Your task to perform on an android device: toggle translation in the chrome app Image 0: 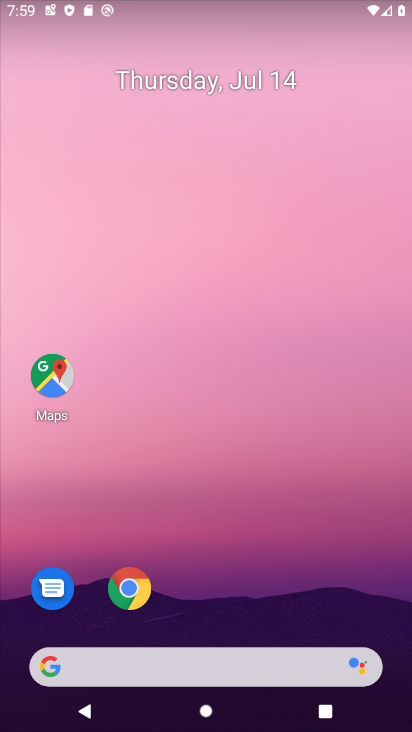
Step 0: drag from (355, 574) to (248, 128)
Your task to perform on an android device: toggle translation in the chrome app Image 1: 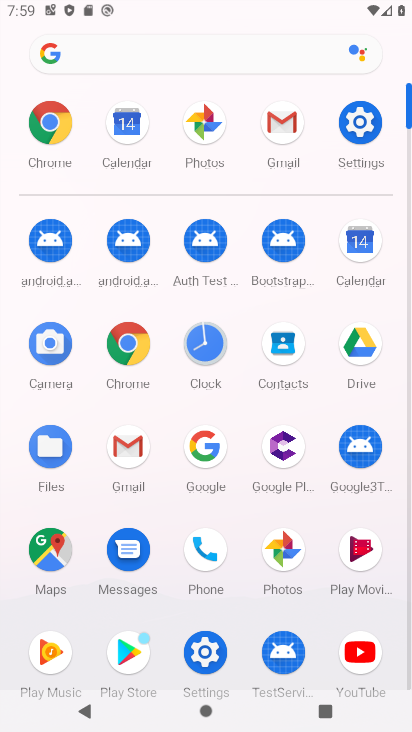
Step 1: click (128, 336)
Your task to perform on an android device: toggle translation in the chrome app Image 2: 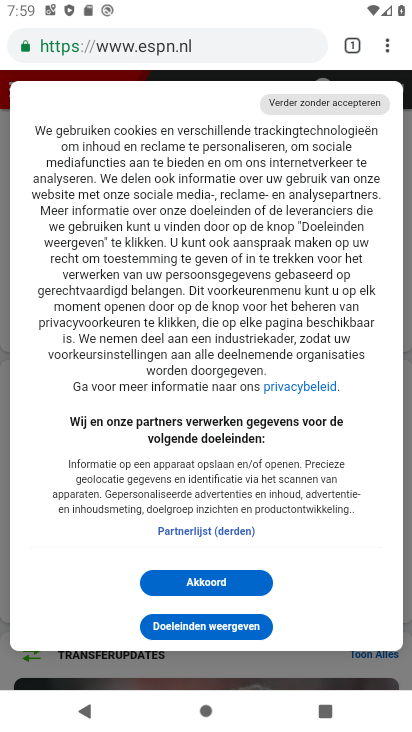
Step 2: click (393, 46)
Your task to perform on an android device: toggle translation in the chrome app Image 3: 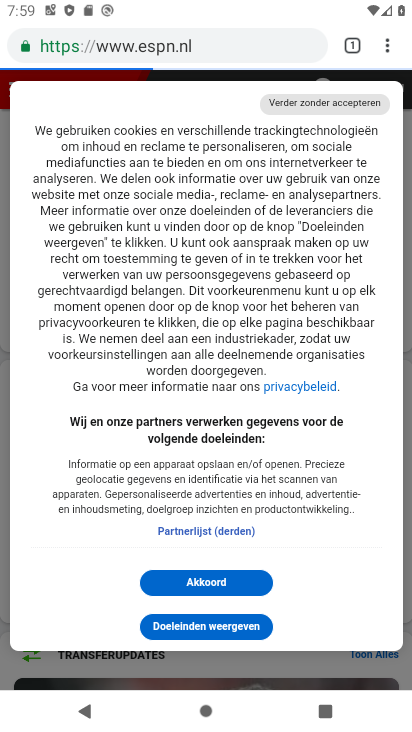
Step 3: drag from (382, 35) to (259, 559)
Your task to perform on an android device: toggle translation in the chrome app Image 4: 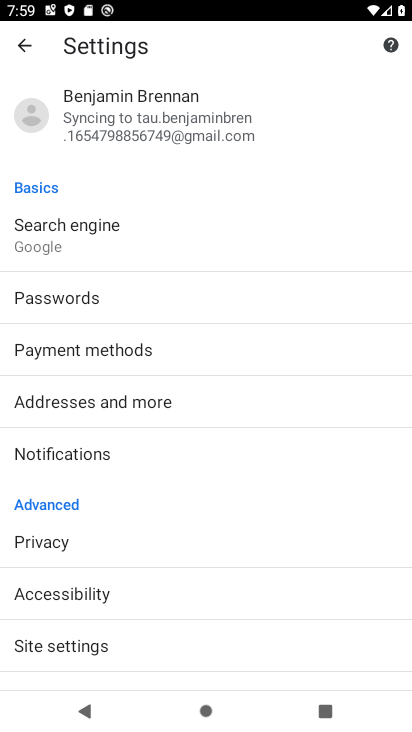
Step 4: drag from (245, 647) to (226, 283)
Your task to perform on an android device: toggle translation in the chrome app Image 5: 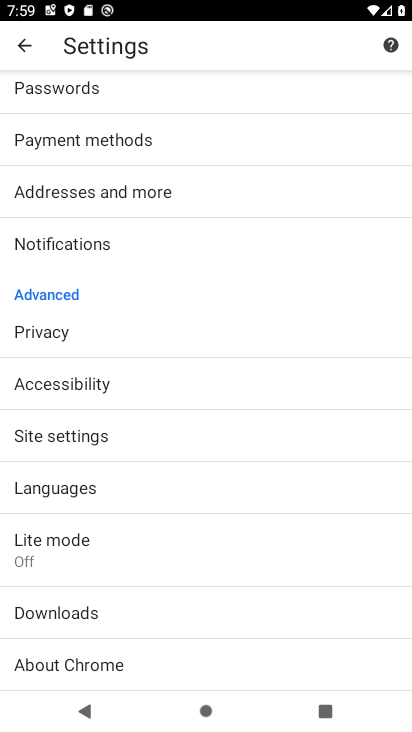
Step 5: click (64, 494)
Your task to perform on an android device: toggle translation in the chrome app Image 6: 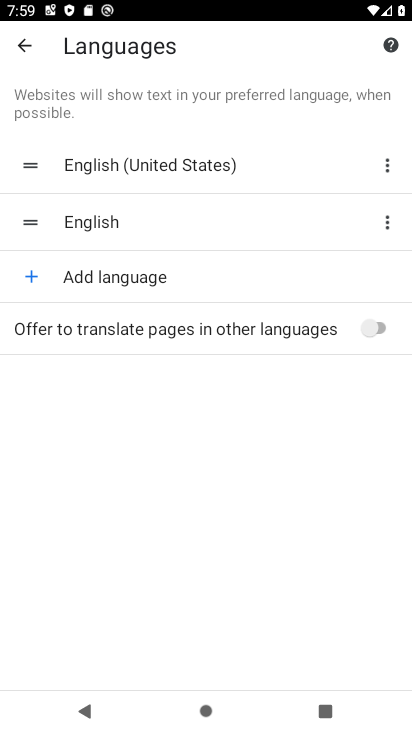
Step 6: click (382, 325)
Your task to perform on an android device: toggle translation in the chrome app Image 7: 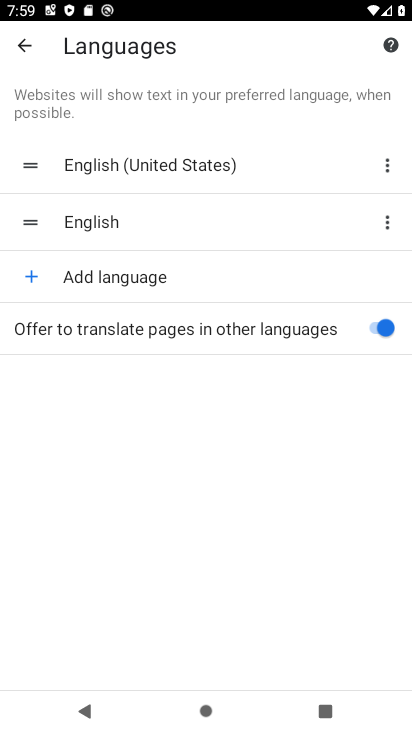
Step 7: task complete